Your task to perform on an android device: Open wifi settings Image 0: 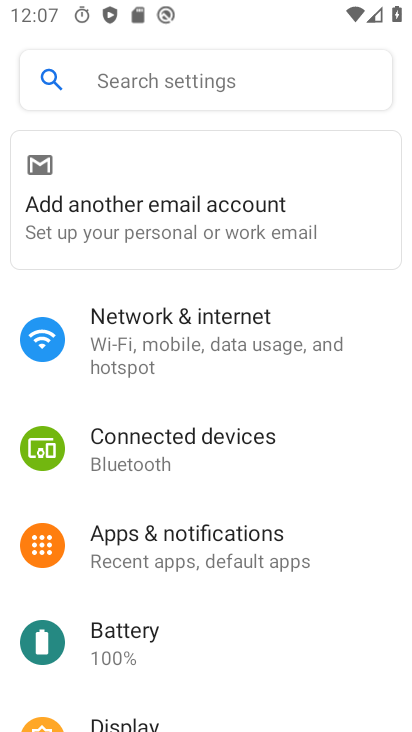
Step 0: click (191, 338)
Your task to perform on an android device: Open wifi settings Image 1: 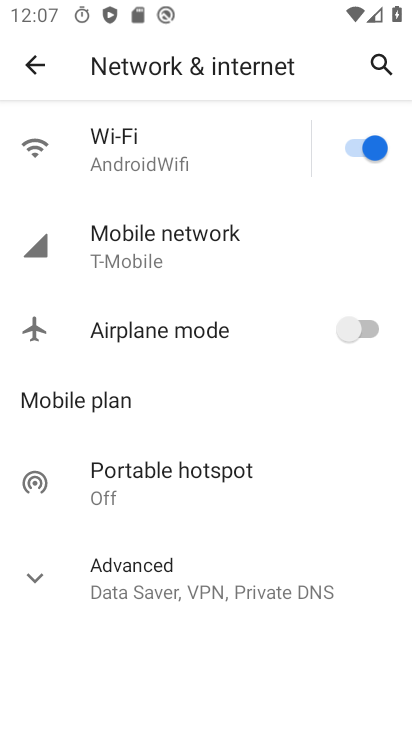
Step 1: click (169, 166)
Your task to perform on an android device: Open wifi settings Image 2: 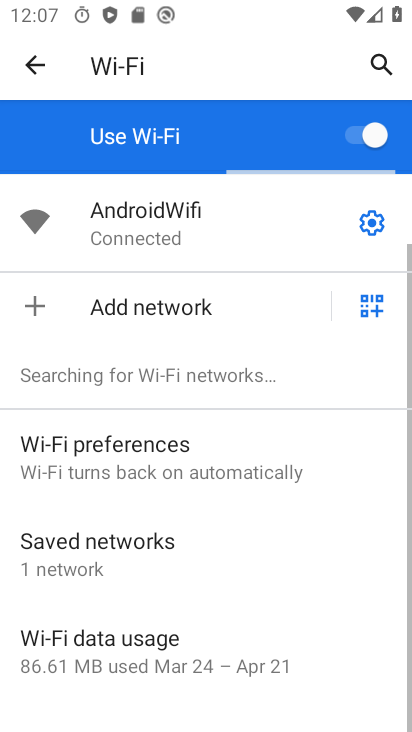
Step 2: task complete